Your task to perform on an android device: Search for razer deathadder on newegg.com, select the first entry, add it to the cart, then select checkout. Image 0: 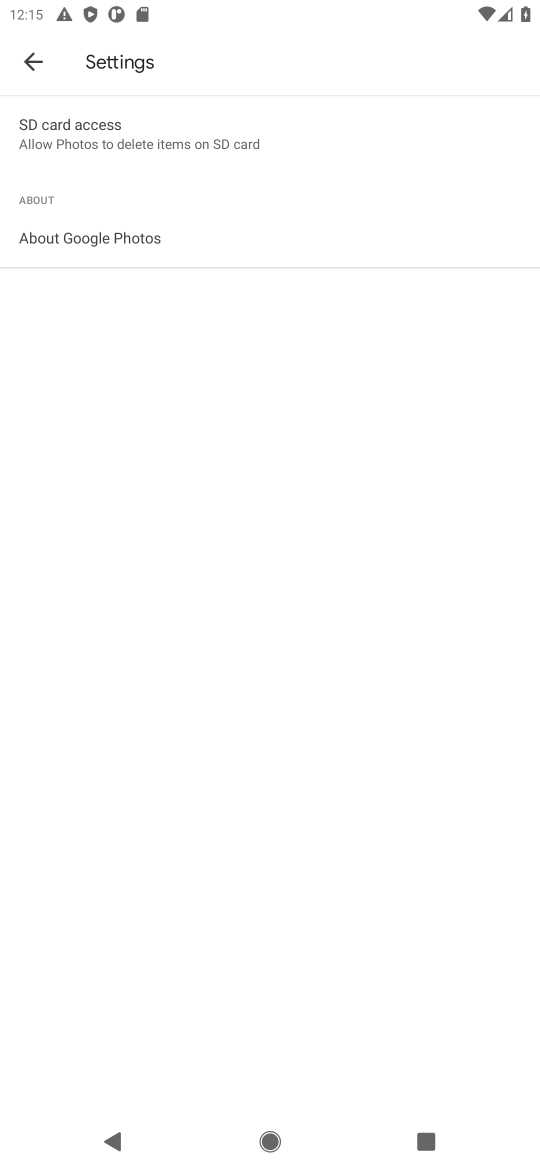
Step 0: press home button
Your task to perform on an android device: Search for razer deathadder on newegg.com, select the first entry, add it to the cart, then select checkout. Image 1: 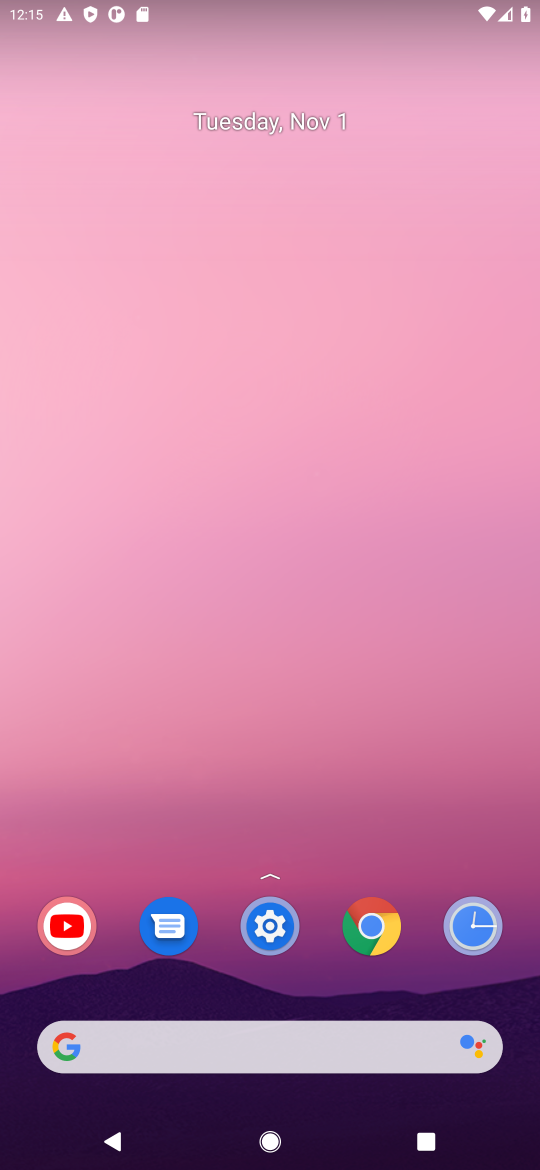
Step 1: click (373, 927)
Your task to perform on an android device: Search for razer deathadder on newegg.com, select the first entry, add it to the cart, then select checkout. Image 2: 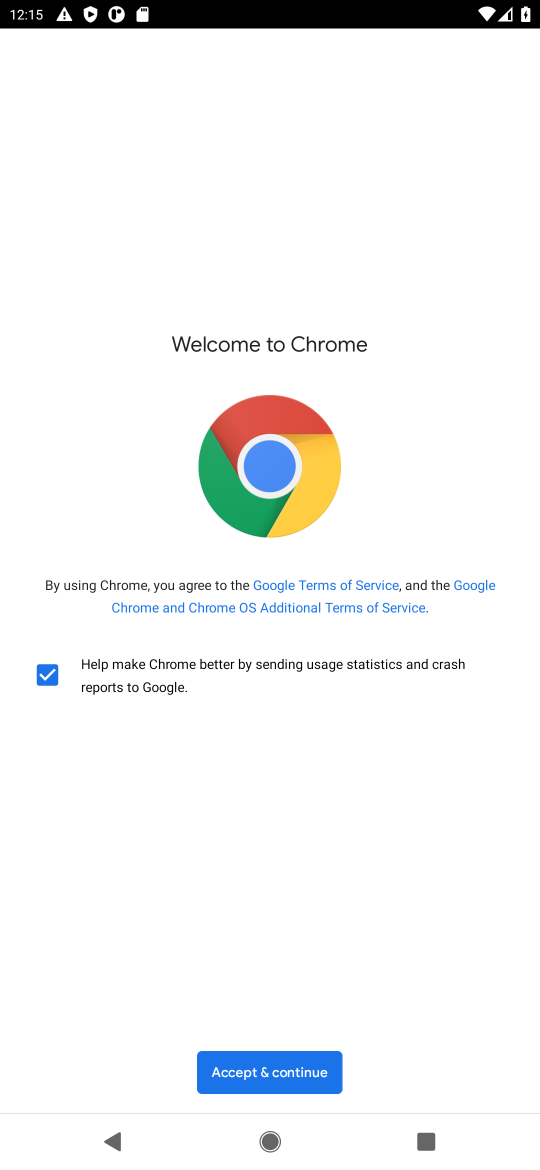
Step 2: click (270, 1075)
Your task to perform on an android device: Search for razer deathadder on newegg.com, select the first entry, add it to the cart, then select checkout. Image 3: 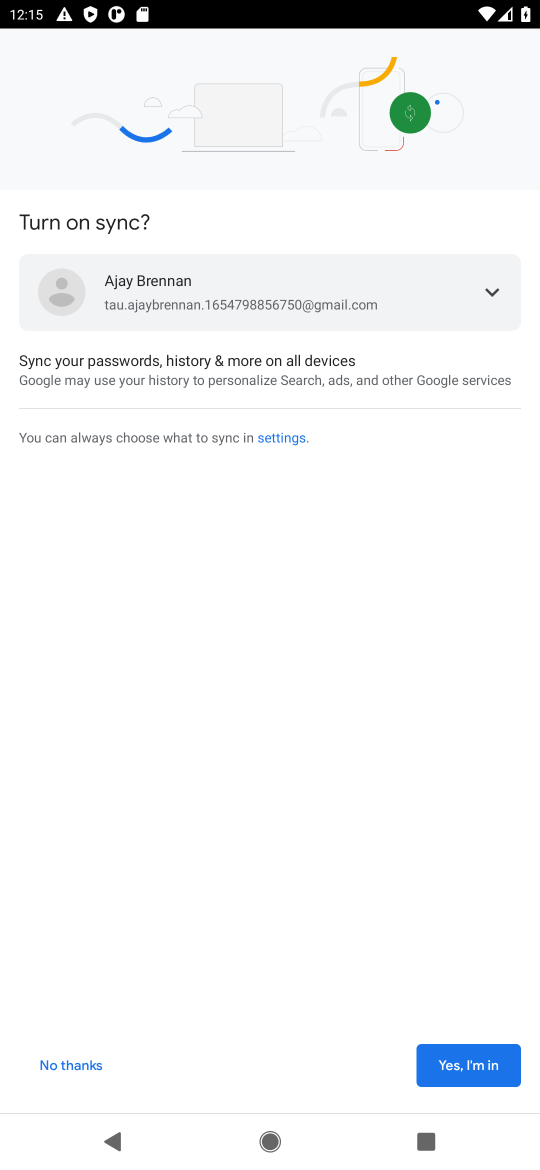
Step 3: click (89, 1059)
Your task to perform on an android device: Search for razer deathadder on newegg.com, select the first entry, add it to the cart, then select checkout. Image 4: 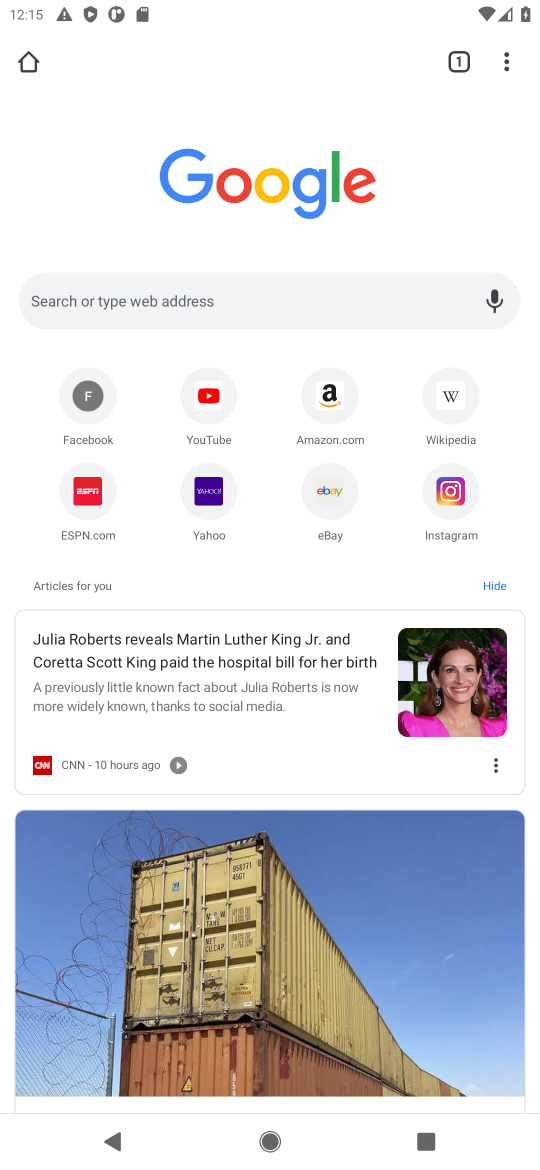
Step 4: click (369, 307)
Your task to perform on an android device: Search for razer deathadder on newegg.com, select the first entry, add it to the cart, then select checkout. Image 5: 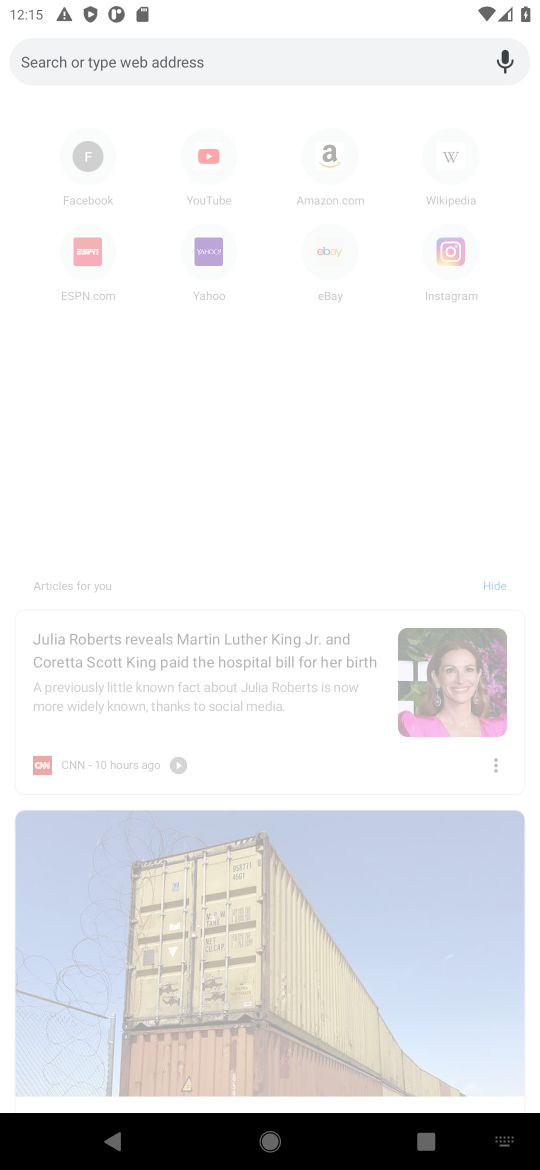
Step 5: type "newegg.com"
Your task to perform on an android device: Search for razer deathadder on newegg.com, select the first entry, add it to the cart, then select checkout. Image 6: 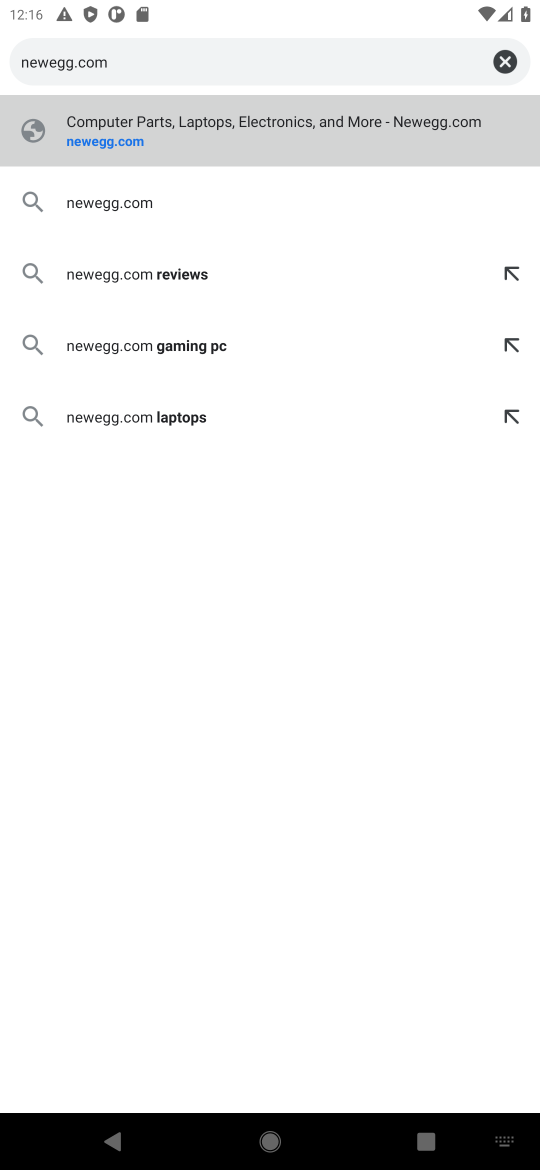
Step 6: press enter
Your task to perform on an android device: Search for razer deathadder on newegg.com, select the first entry, add it to the cart, then select checkout. Image 7: 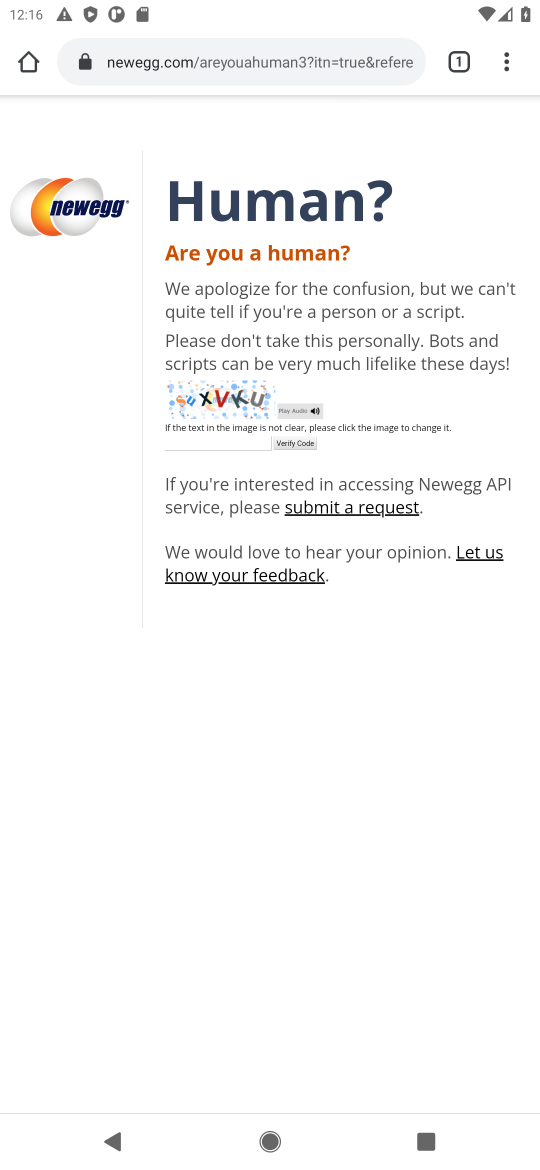
Step 7: click (218, 446)
Your task to perform on an android device: Search for razer deathadder on newegg.com, select the first entry, add it to the cart, then select checkout. Image 8: 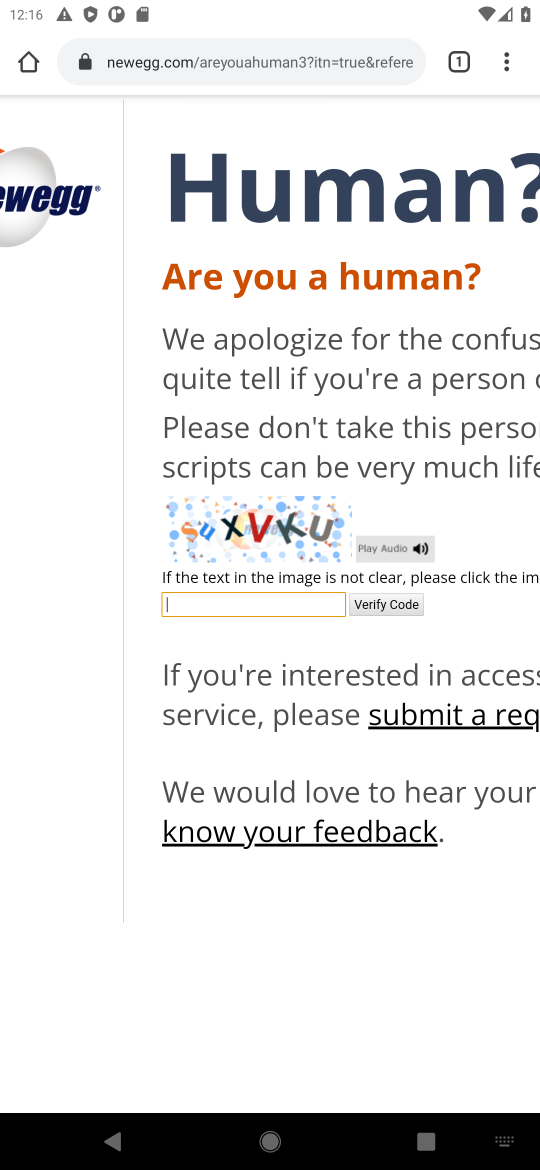
Step 8: type "suXVKU"
Your task to perform on an android device: Search for razer deathadder on newegg.com, select the first entry, add it to the cart, then select checkout. Image 9: 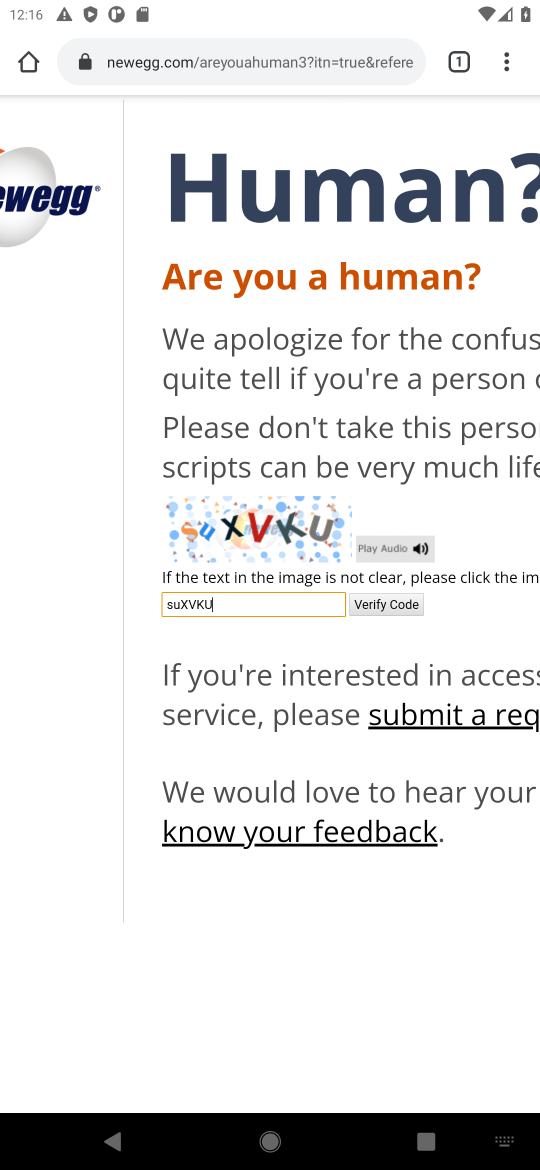
Step 9: click (381, 601)
Your task to perform on an android device: Search for razer deathadder on newegg.com, select the first entry, add it to the cart, then select checkout. Image 10: 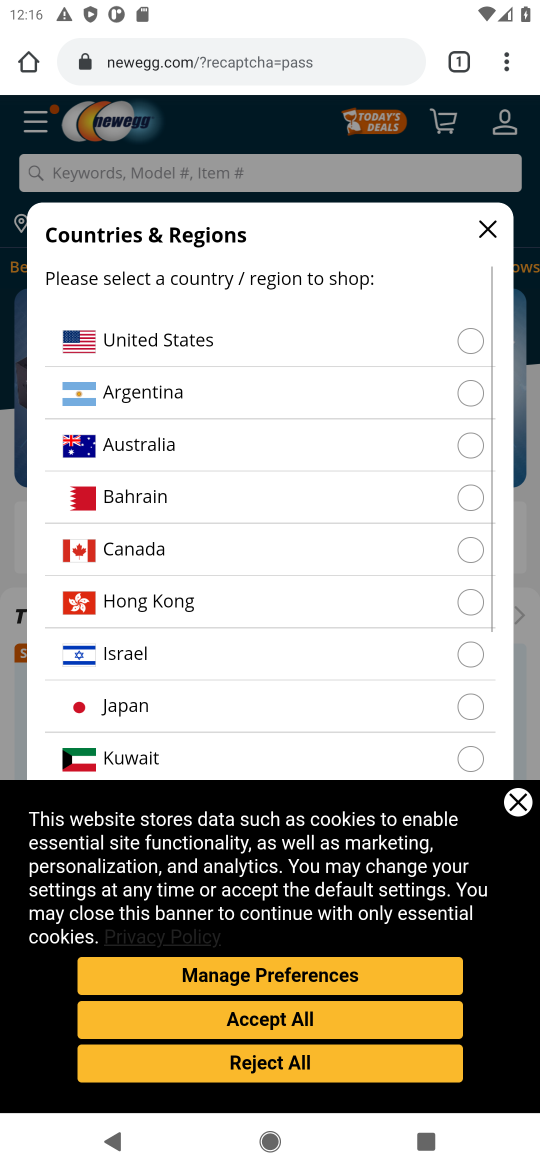
Step 10: click (495, 232)
Your task to perform on an android device: Search for razer deathadder on newegg.com, select the first entry, add it to the cart, then select checkout. Image 11: 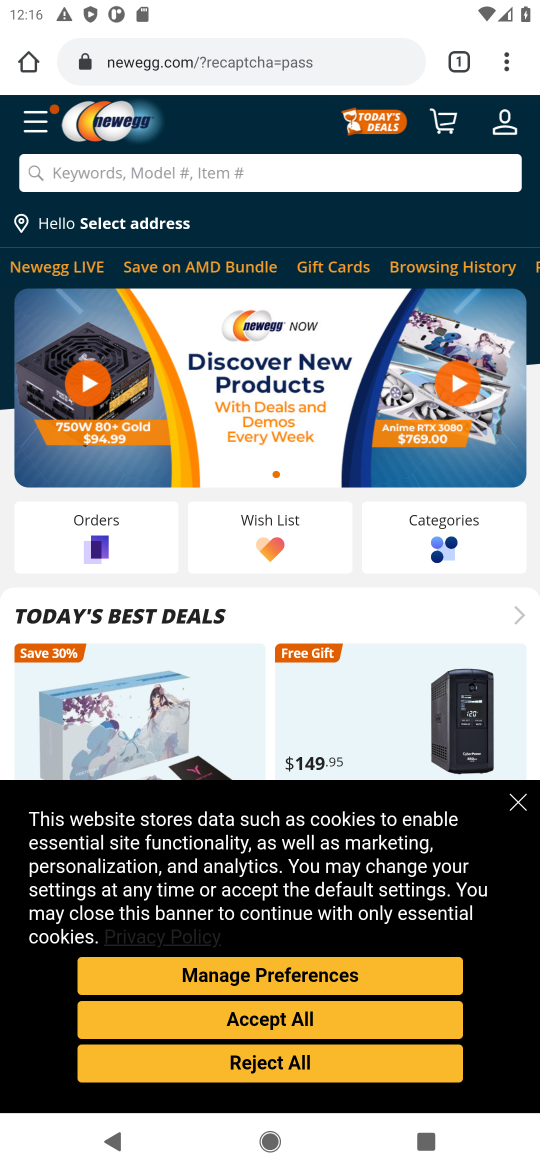
Step 11: click (268, 1021)
Your task to perform on an android device: Search for razer deathadder on newegg.com, select the first entry, add it to the cart, then select checkout. Image 12: 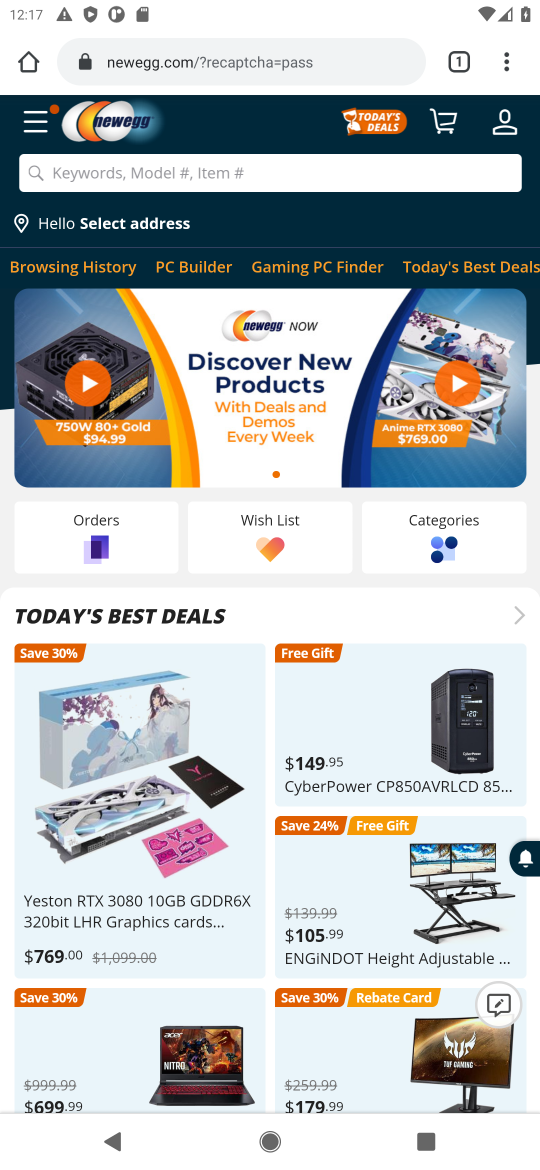
Step 12: click (260, 178)
Your task to perform on an android device: Search for razer deathadder on newegg.com, select the first entry, add it to the cart, then select checkout. Image 13: 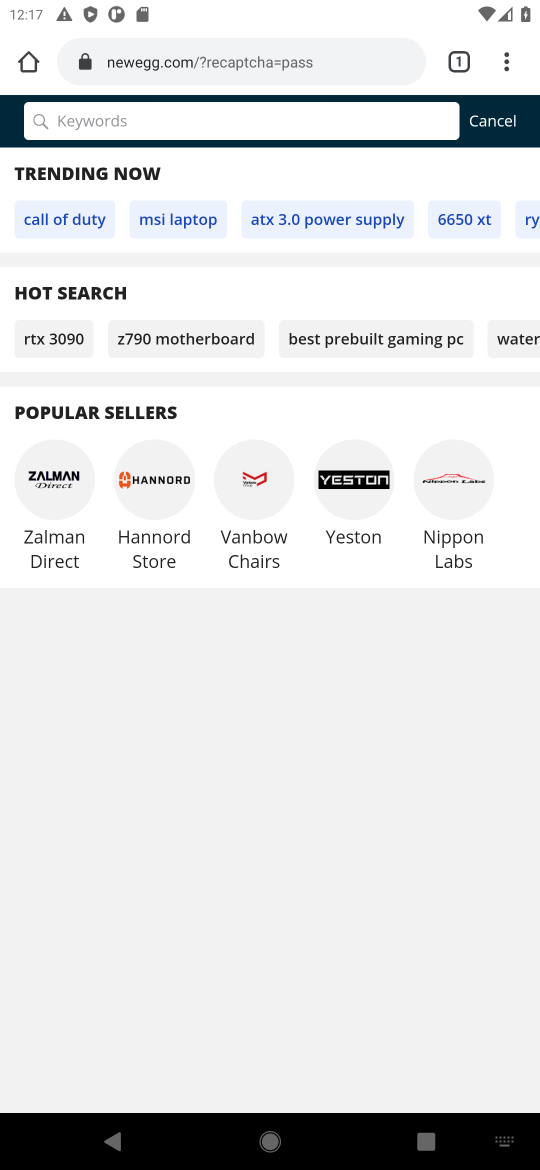
Step 13: type "razer deathadder"
Your task to perform on an android device: Search for razer deathadder on newegg.com, select the first entry, add it to the cart, then select checkout. Image 14: 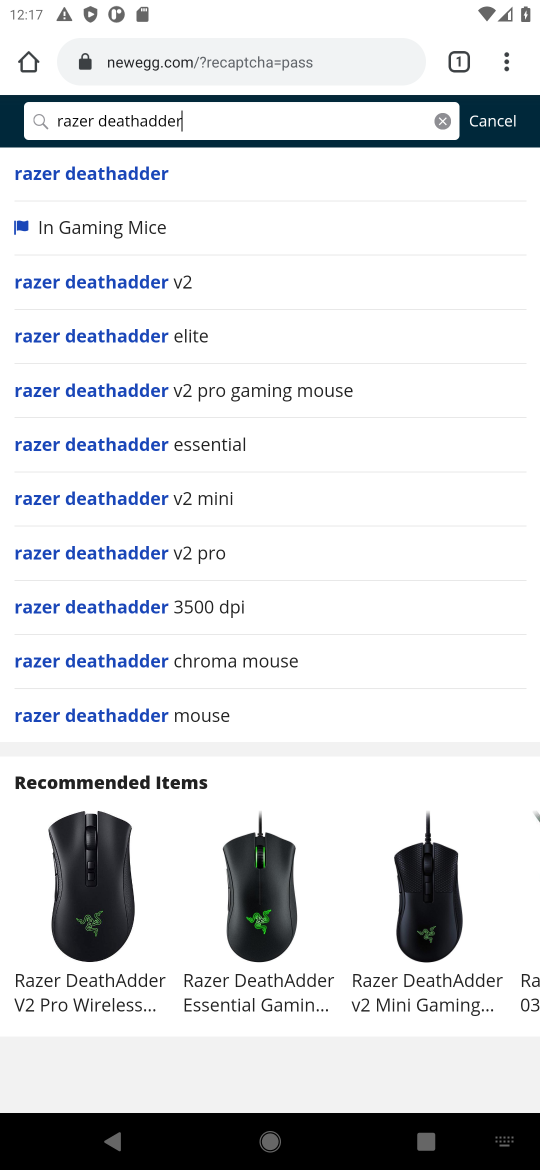
Step 14: click (64, 166)
Your task to perform on an android device: Search for razer deathadder on newegg.com, select the first entry, add it to the cart, then select checkout. Image 15: 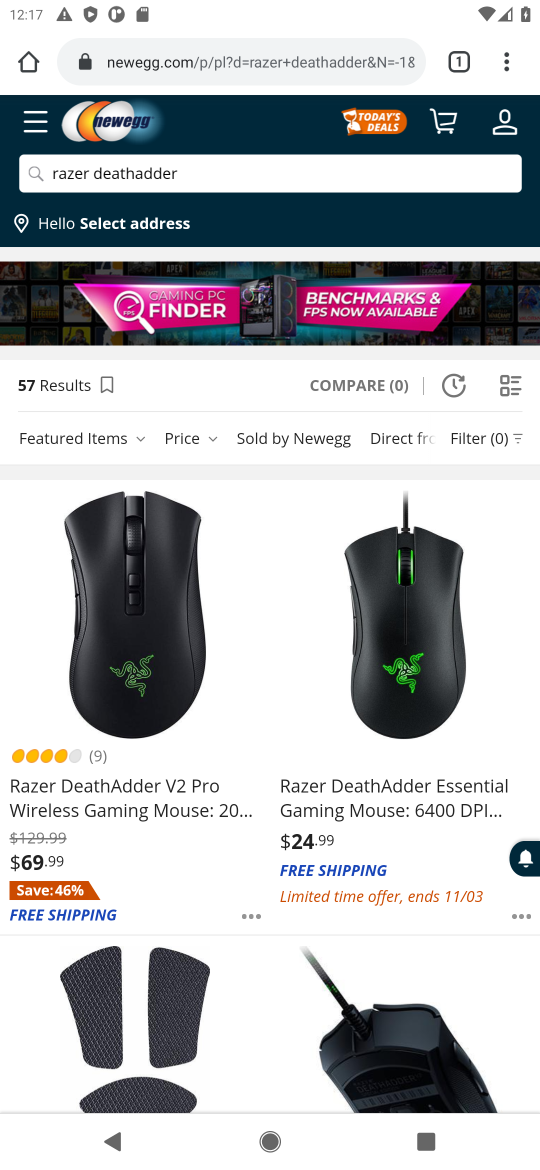
Step 15: click (161, 570)
Your task to perform on an android device: Search for razer deathadder on newegg.com, select the first entry, add it to the cart, then select checkout. Image 16: 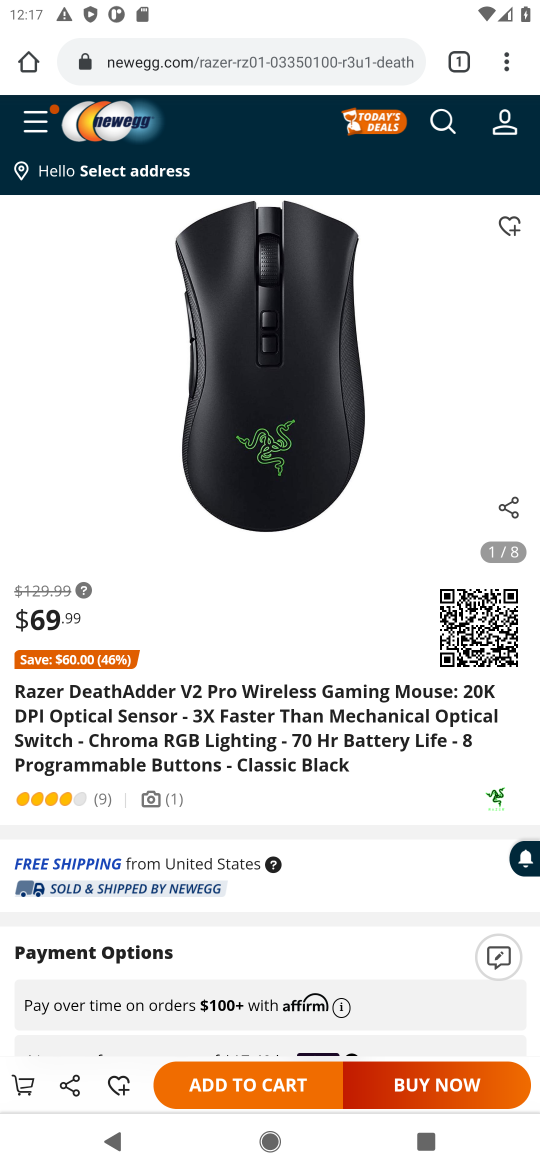
Step 16: click (261, 1083)
Your task to perform on an android device: Search for razer deathadder on newegg.com, select the first entry, add it to the cart, then select checkout. Image 17: 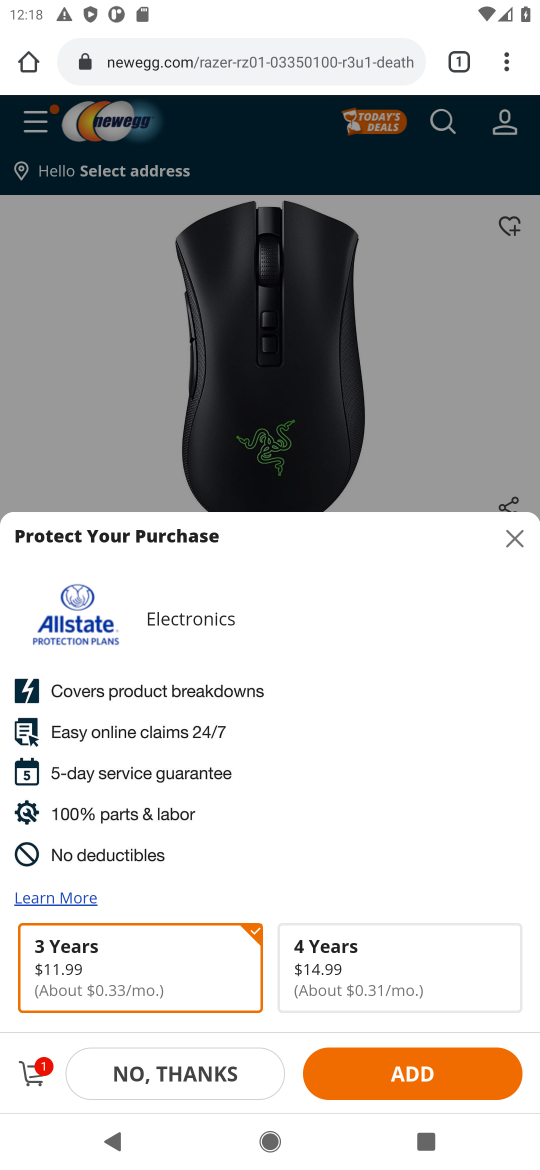
Step 17: click (189, 1075)
Your task to perform on an android device: Search for razer deathadder on newegg.com, select the first entry, add it to the cart, then select checkout. Image 18: 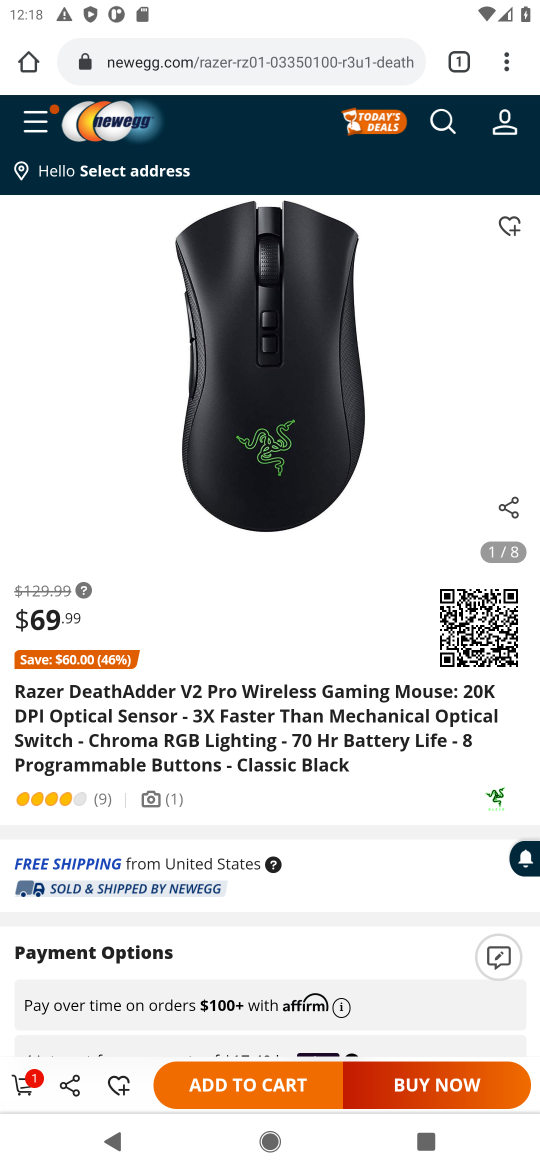
Step 18: click (501, 133)
Your task to perform on an android device: Search for razer deathadder on newegg.com, select the first entry, add it to the cart, then select checkout. Image 19: 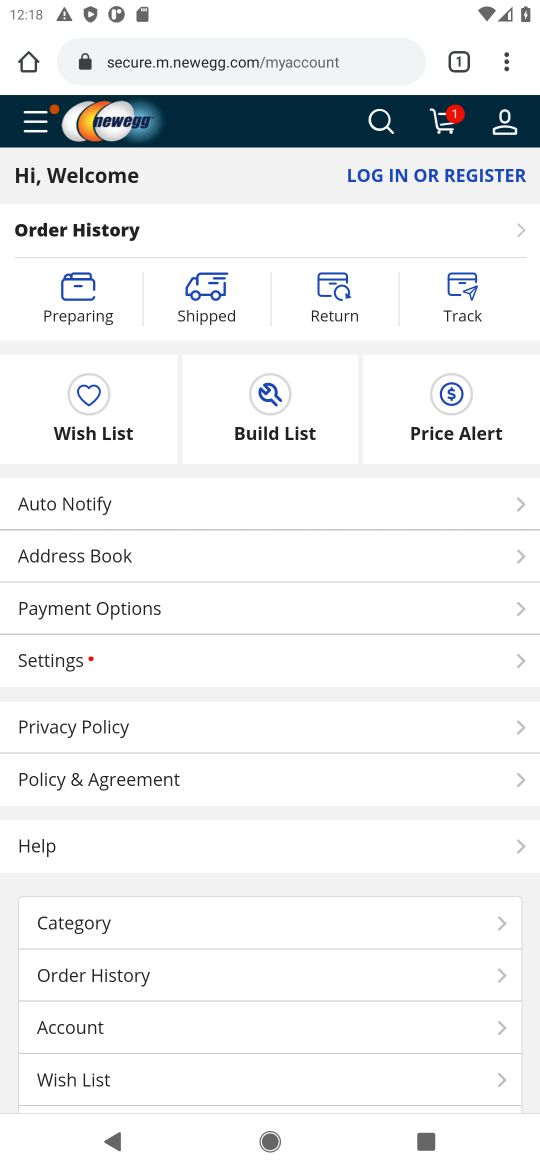
Step 19: click (448, 125)
Your task to perform on an android device: Search for razer deathadder on newegg.com, select the first entry, add it to the cart, then select checkout. Image 20: 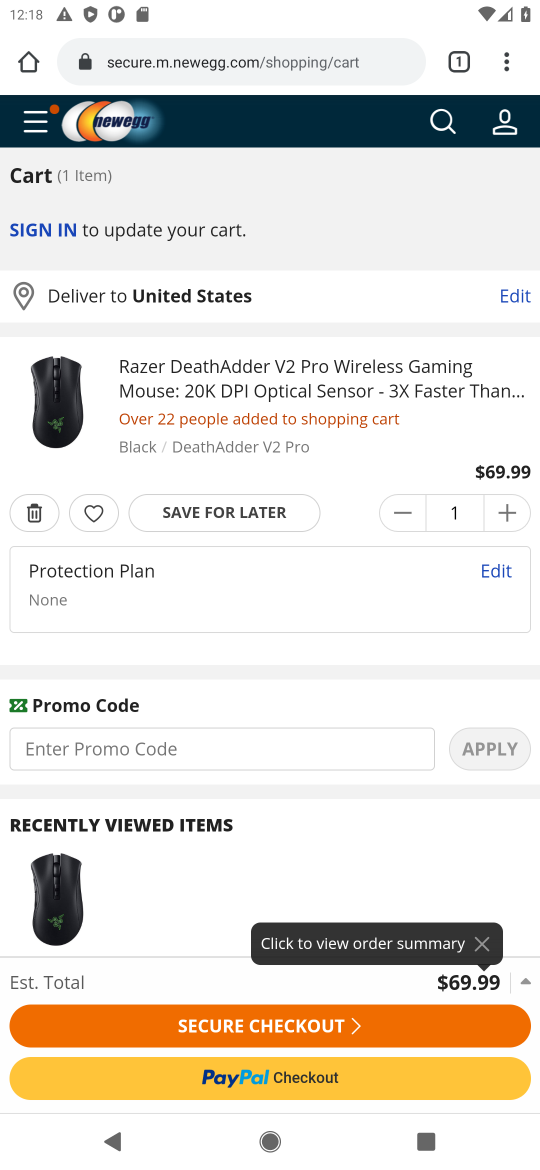
Step 20: click (307, 1025)
Your task to perform on an android device: Search for razer deathadder on newegg.com, select the first entry, add it to the cart, then select checkout. Image 21: 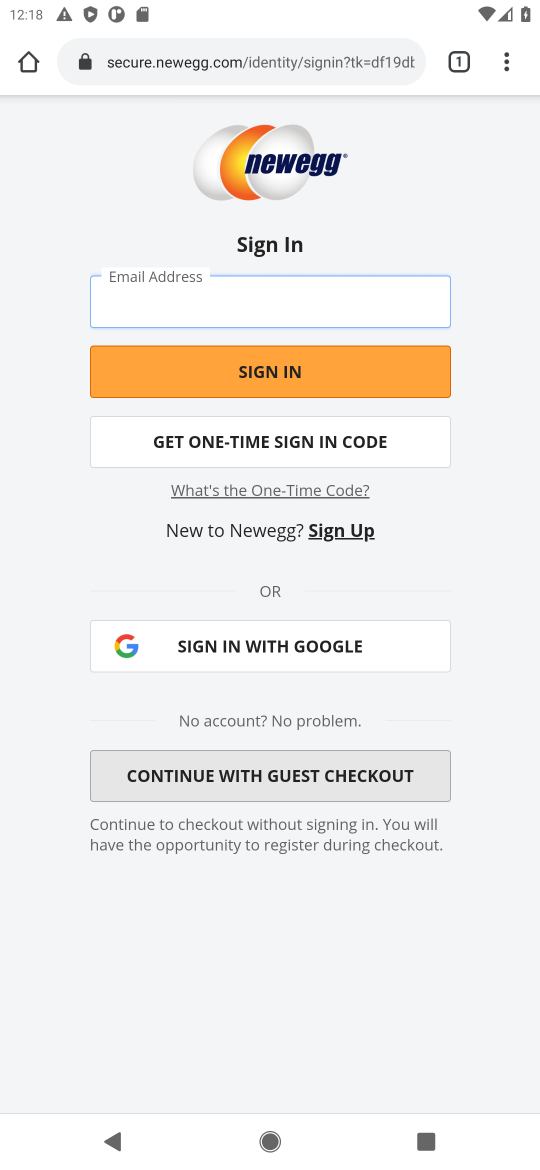
Step 21: task complete